Your task to perform on an android device: Go to CNN.com Image 0: 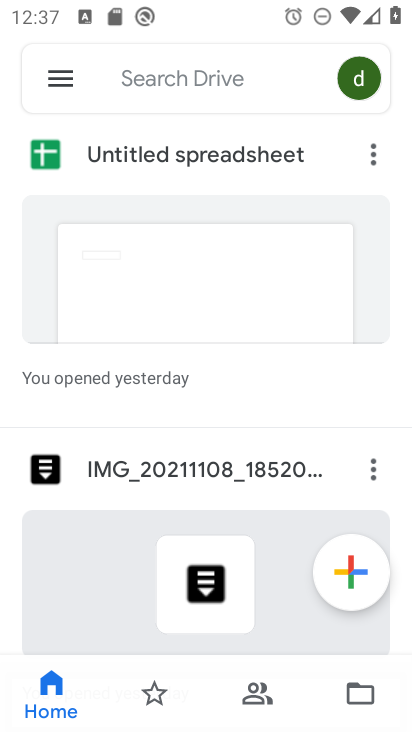
Step 0: press home button
Your task to perform on an android device: Go to CNN.com Image 1: 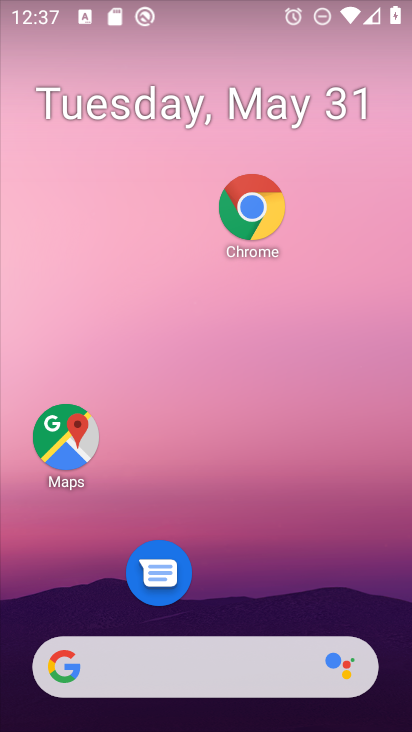
Step 1: click (242, 207)
Your task to perform on an android device: Go to CNN.com Image 2: 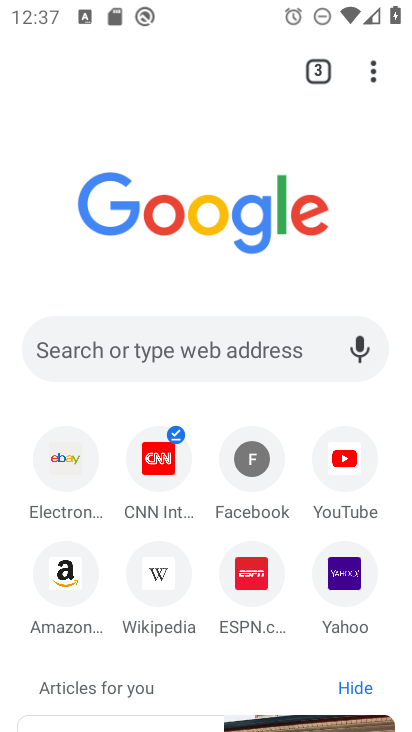
Step 2: click (163, 462)
Your task to perform on an android device: Go to CNN.com Image 3: 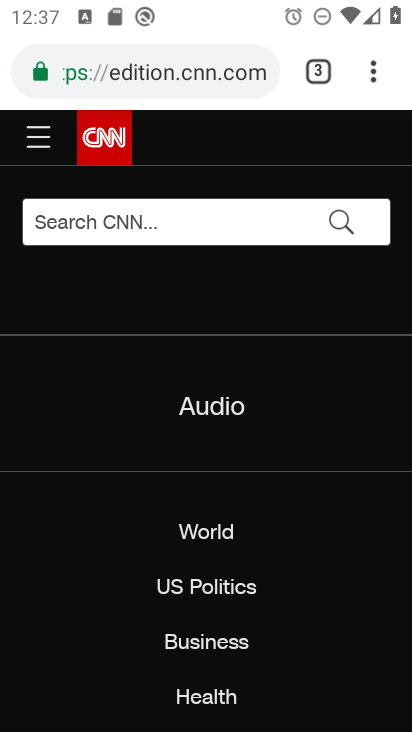
Step 3: task complete